Your task to perform on an android device: empty trash in the gmail app Image 0: 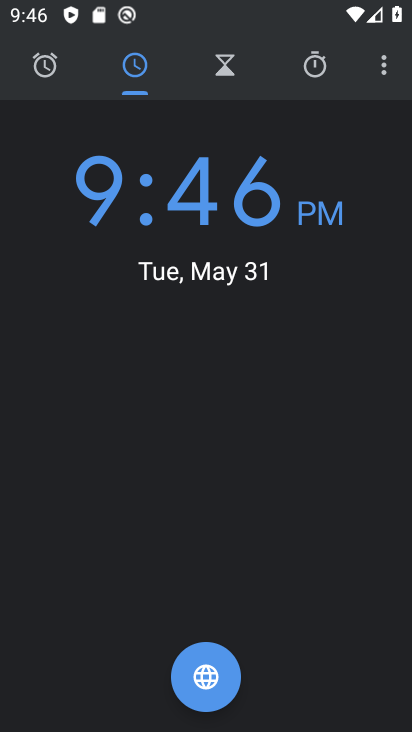
Step 0: press home button
Your task to perform on an android device: empty trash in the gmail app Image 1: 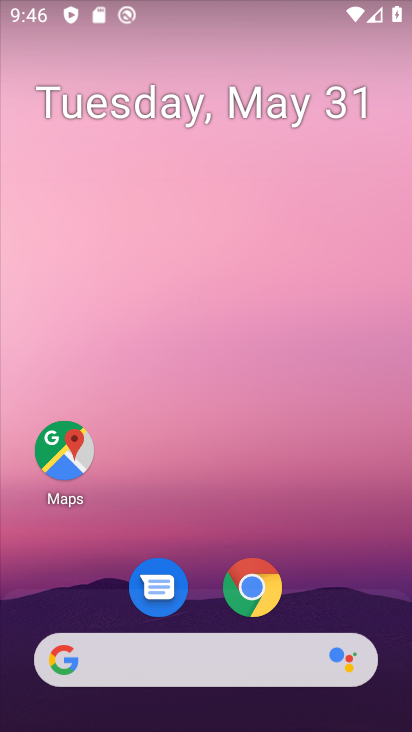
Step 1: drag from (202, 615) to (241, 80)
Your task to perform on an android device: empty trash in the gmail app Image 2: 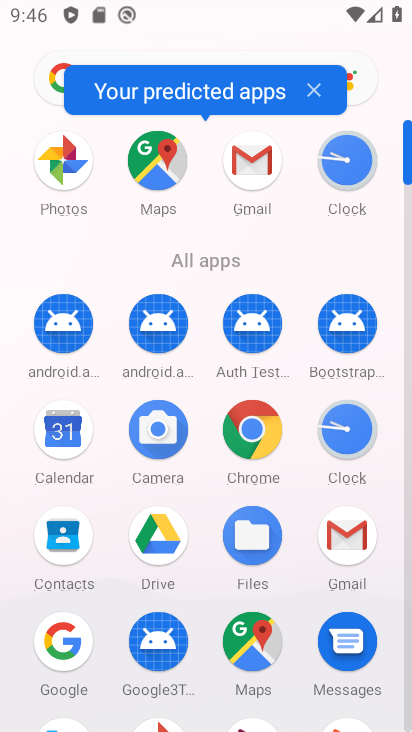
Step 2: click (345, 523)
Your task to perform on an android device: empty trash in the gmail app Image 3: 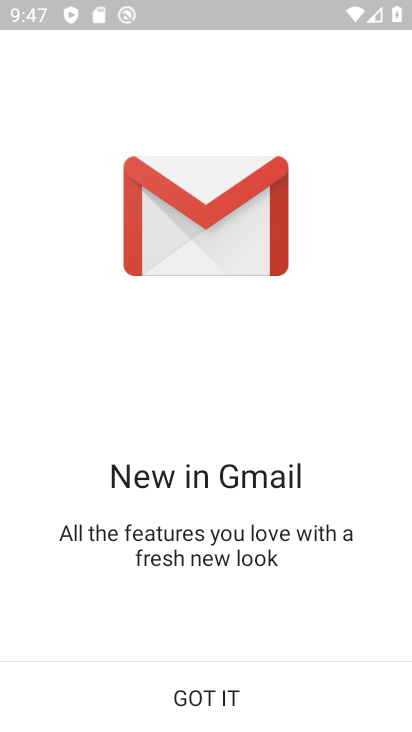
Step 3: click (211, 704)
Your task to perform on an android device: empty trash in the gmail app Image 4: 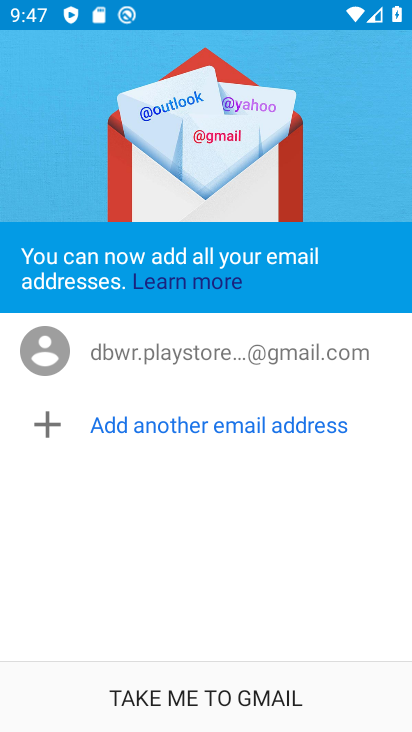
Step 4: click (213, 684)
Your task to perform on an android device: empty trash in the gmail app Image 5: 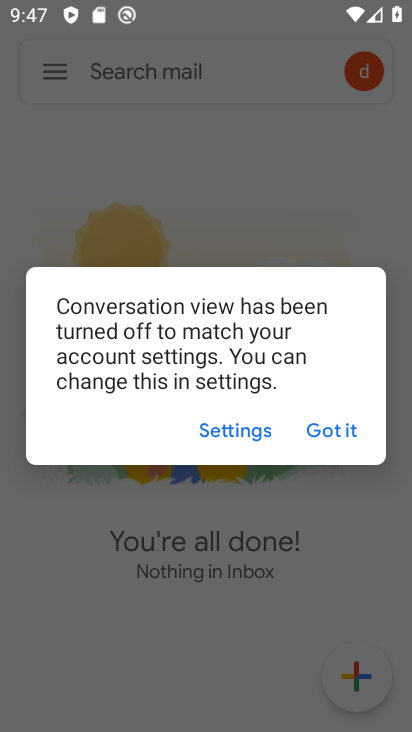
Step 5: click (339, 429)
Your task to perform on an android device: empty trash in the gmail app Image 6: 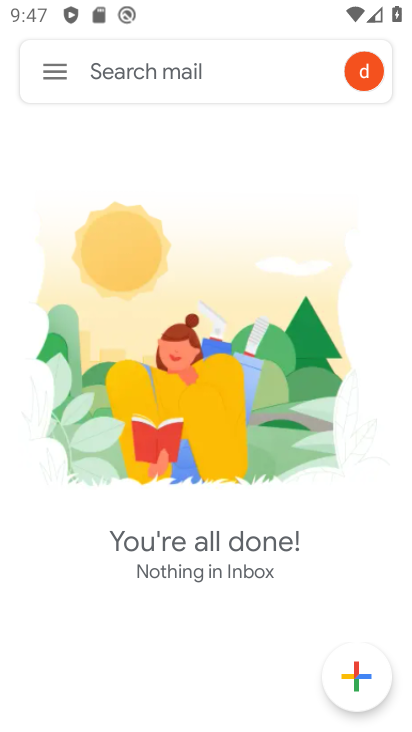
Step 6: click (61, 76)
Your task to perform on an android device: empty trash in the gmail app Image 7: 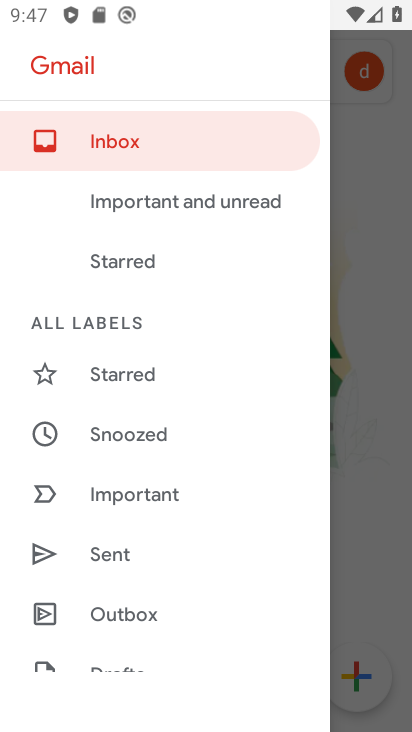
Step 7: drag from (136, 610) to (191, 78)
Your task to perform on an android device: empty trash in the gmail app Image 8: 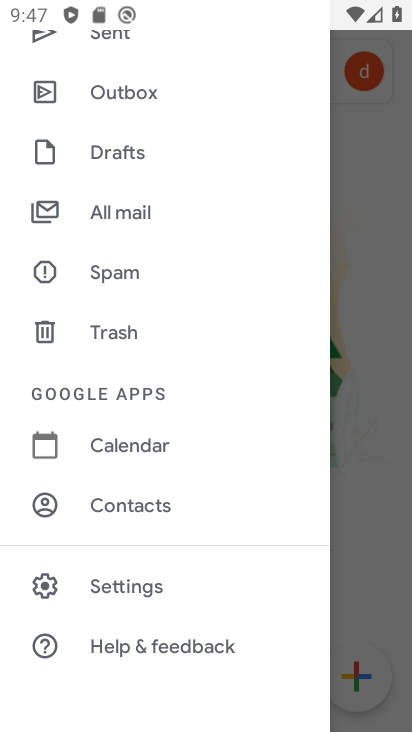
Step 8: click (142, 326)
Your task to perform on an android device: empty trash in the gmail app Image 9: 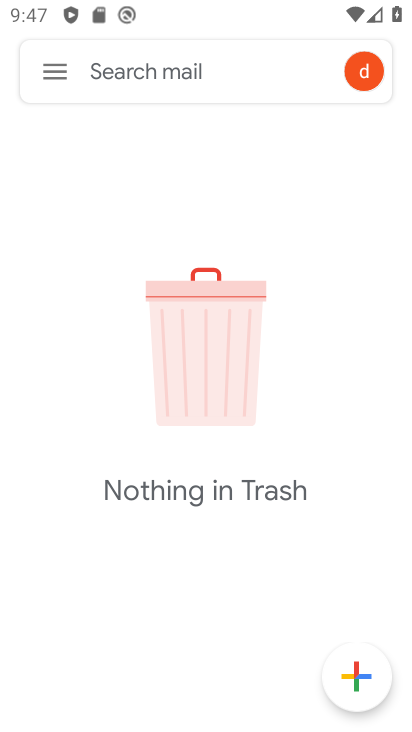
Step 9: task complete